Your task to perform on an android device: Search for pizza restaurants on Maps Image 0: 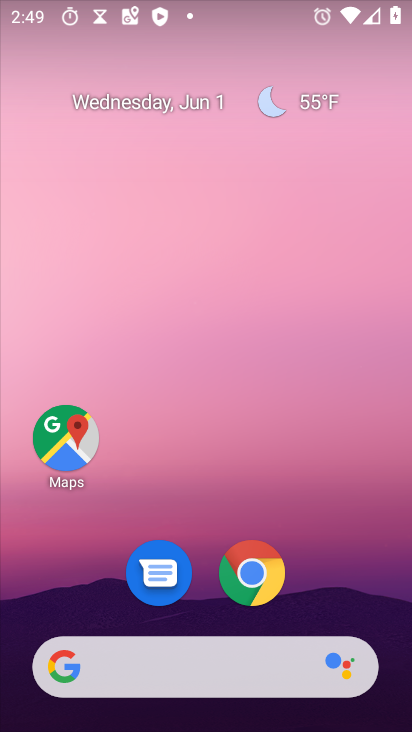
Step 0: drag from (376, 551) to (355, 66)
Your task to perform on an android device: Search for pizza restaurants on Maps Image 1: 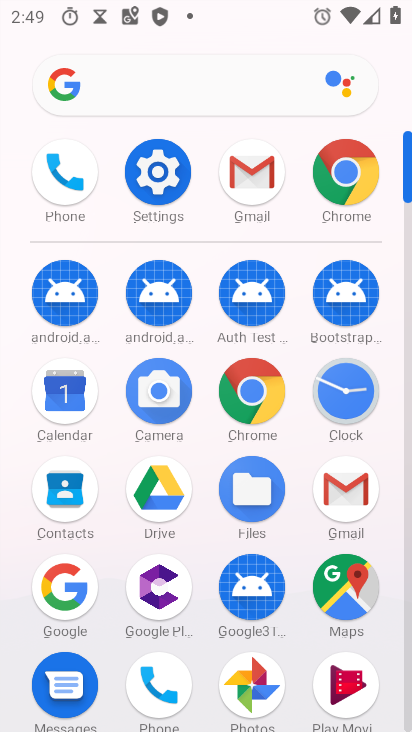
Step 1: click (347, 587)
Your task to perform on an android device: Search for pizza restaurants on Maps Image 2: 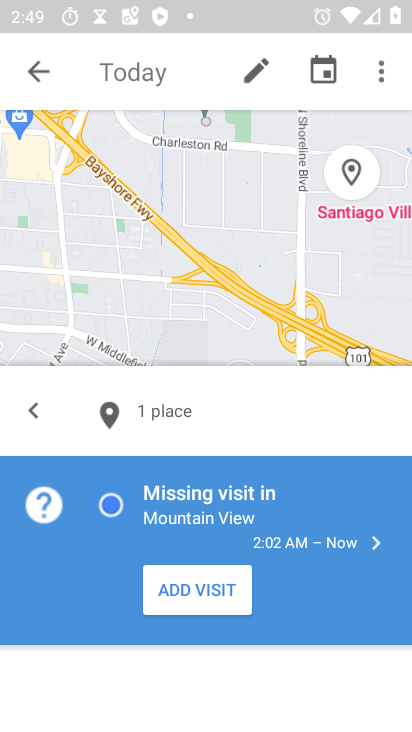
Step 2: click (53, 79)
Your task to perform on an android device: Search for pizza restaurants on Maps Image 3: 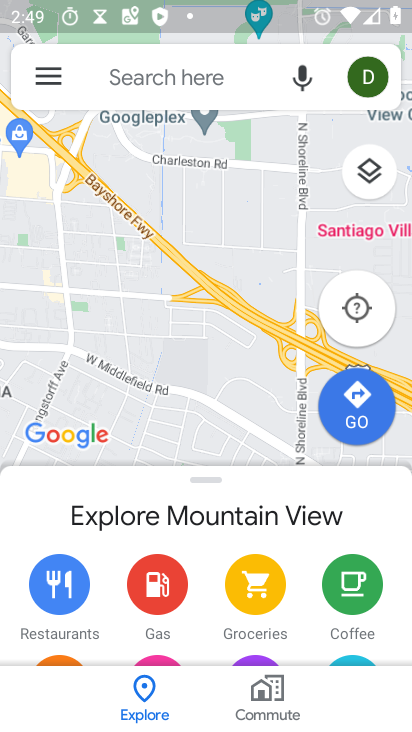
Step 3: click (53, 79)
Your task to perform on an android device: Search for pizza restaurants on Maps Image 4: 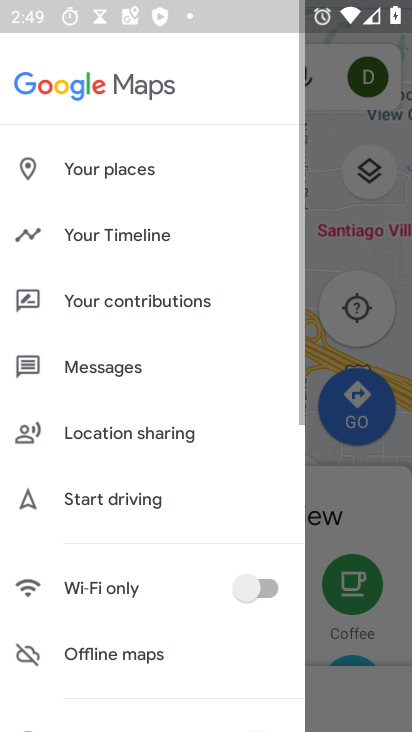
Step 4: click (81, 61)
Your task to perform on an android device: Search for pizza restaurants on Maps Image 5: 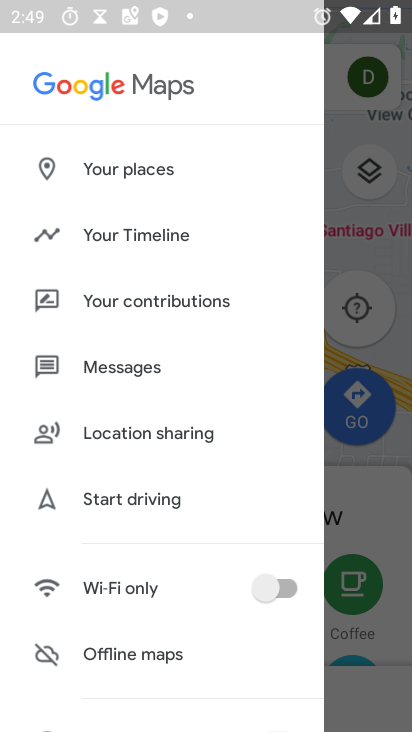
Step 5: press back button
Your task to perform on an android device: Search for pizza restaurants on Maps Image 6: 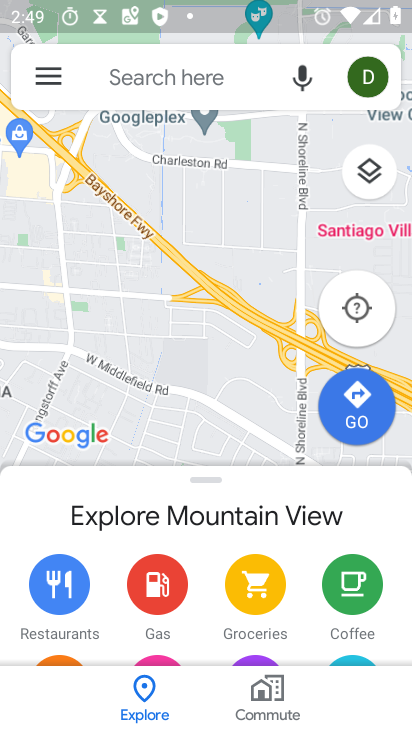
Step 6: click (162, 103)
Your task to perform on an android device: Search for pizza restaurants on Maps Image 7: 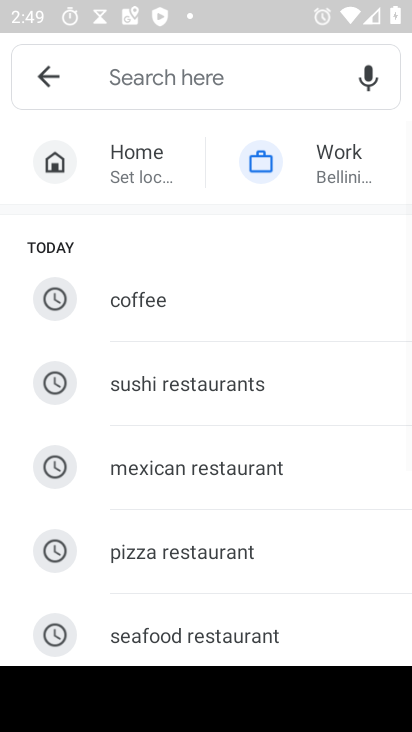
Step 7: click (209, 548)
Your task to perform on an android device: Search for pizza restaurants on Maps Image 8: 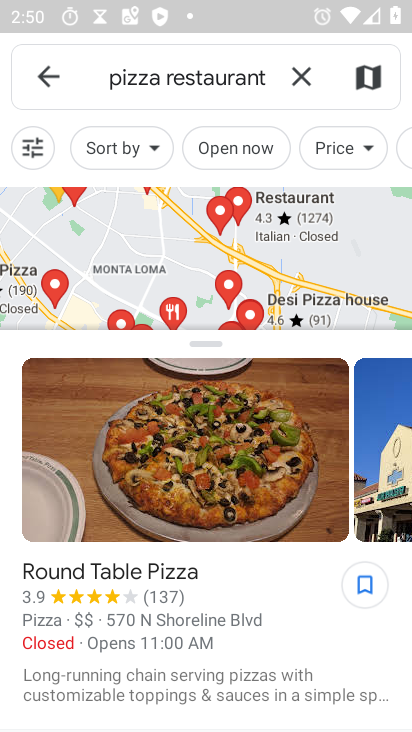
Step 8: task complete